Your task to perform on an android device: add a contact in the contacts app Image 0: 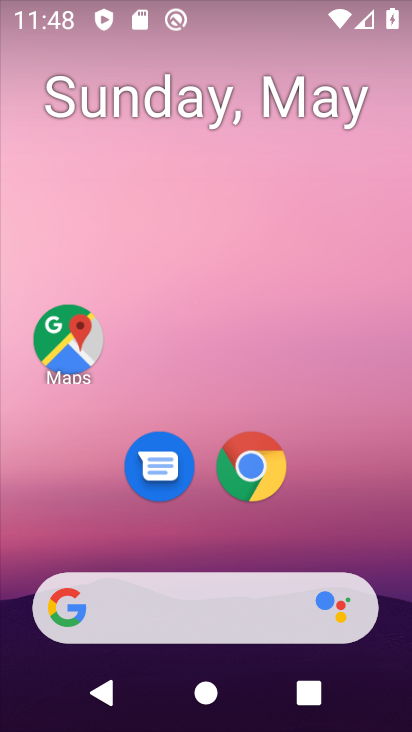
Step 0: drag from (326, 302) to (299, 6)
Your task to perform on an android device: add a contact in the contacts app Image 1: 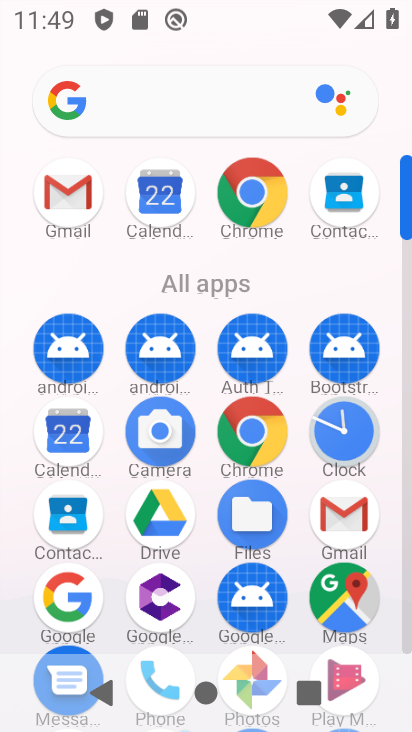
Step 1: click (89, 543)
Your task to perform on an android device: add a contact in the contacts app Image 2: 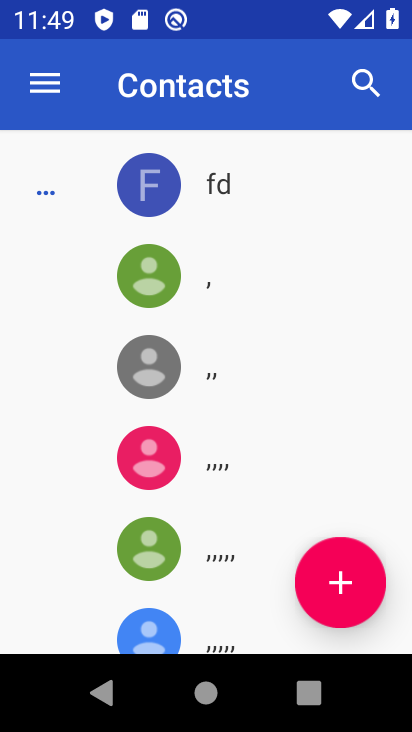
Step 2: click (352, 580)
Your task to perform on an android device: add a contact in the contacts app Image 3: 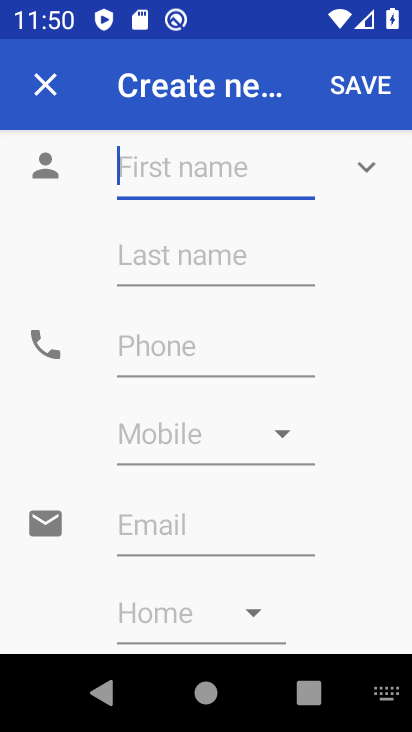
Step 3: type "b/.jj"
Your task to perform on an android device: add a contact in the contacts app Image 4: 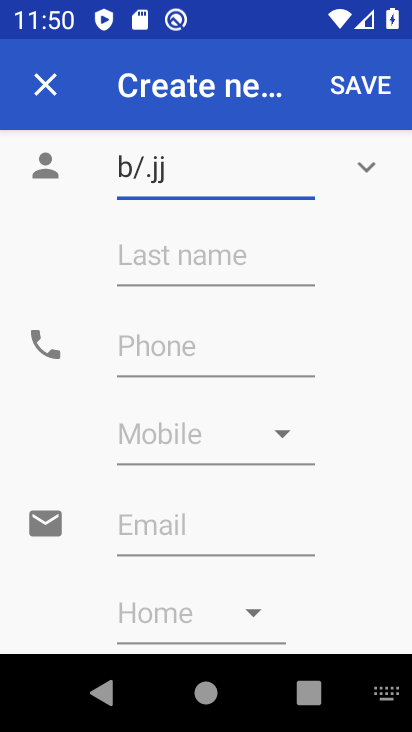
Step 4: click (145, 324)
Your task to perform on an android device: add a contact in the contacts app Image 5: 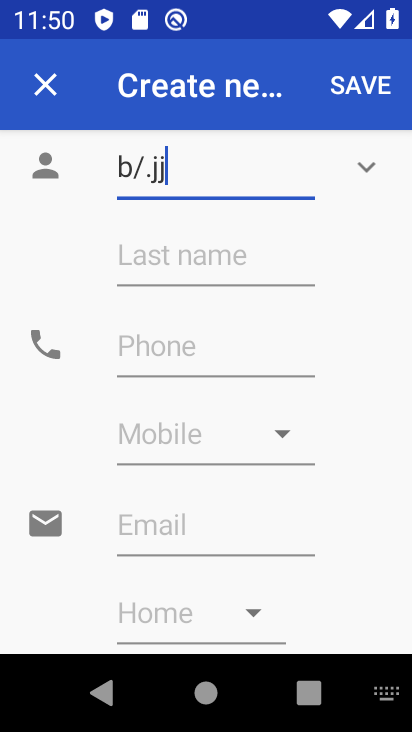
Step 5: click (145, 324)
Your task to perform on an android device: add a contact in the contacts app Image 6: 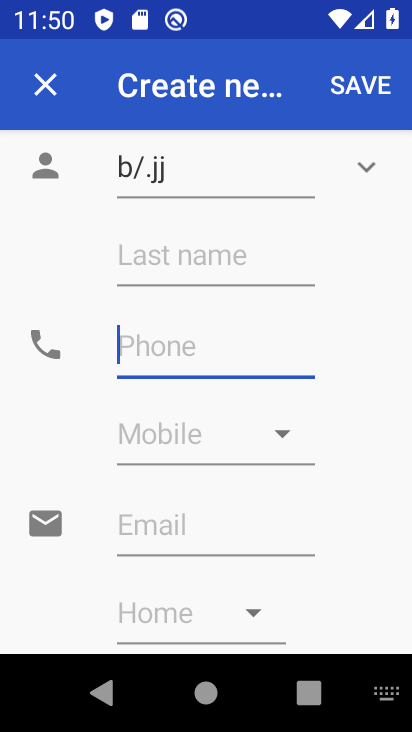
Step 6: click (145, 324)
Your task to perform on an android device: add a contact in the contacts app Image 7: 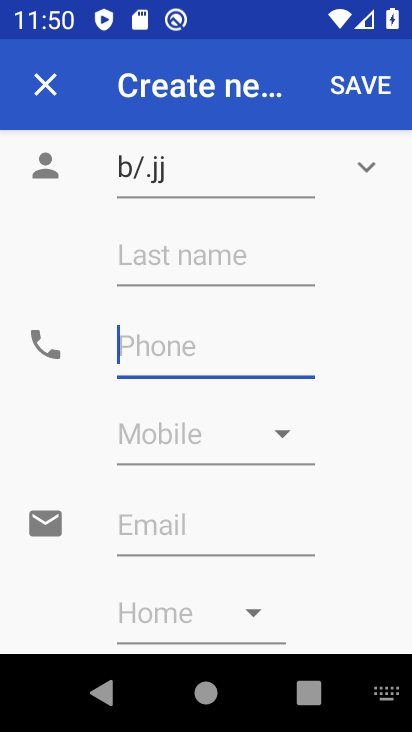
Step 7: click (145, 324)
Your task to perform on an android device: add a contact in the contacts app Image 8: 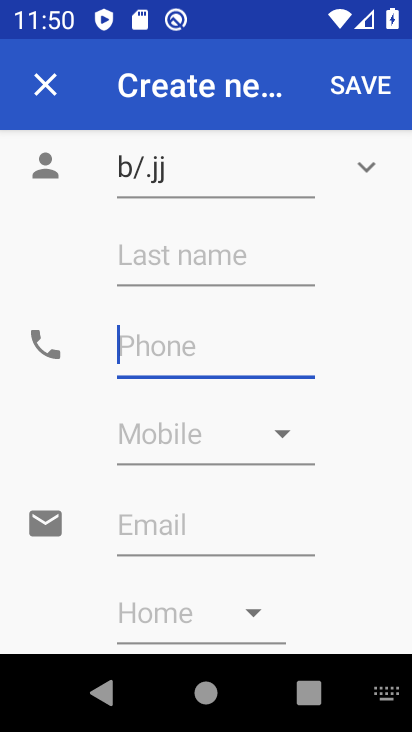
Step 8: click (145, 324)
Your task to perform on an android device: add a contact in the contacts app Image 9: 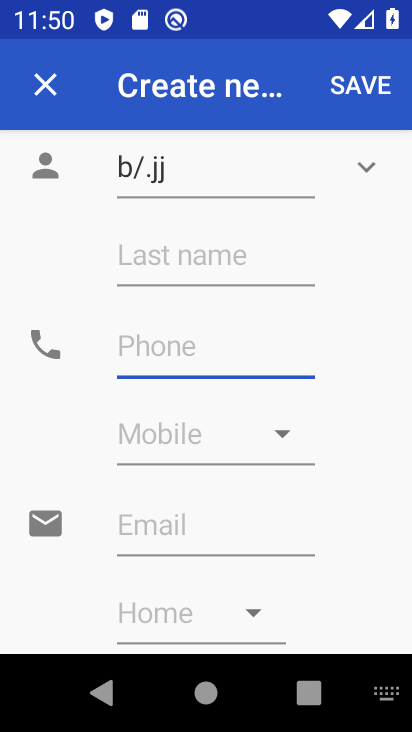
Step 9: click (145, 324)
Your task to perform on an android device: add a contact in the contacts app Image 10: 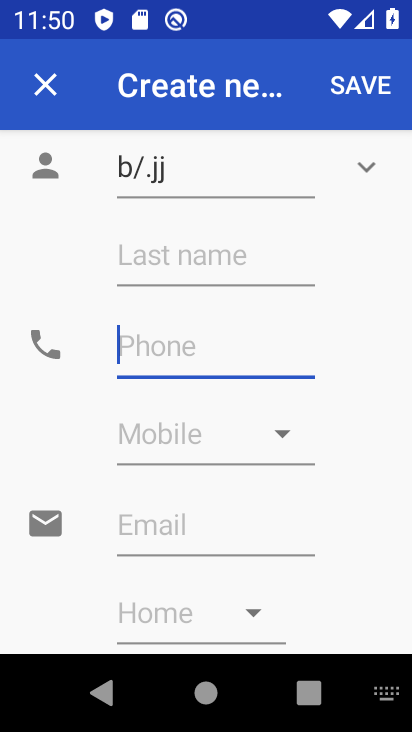
Step 10: type "......."
Your task to perform on an android device: add a contact in the contacts app Image 11: 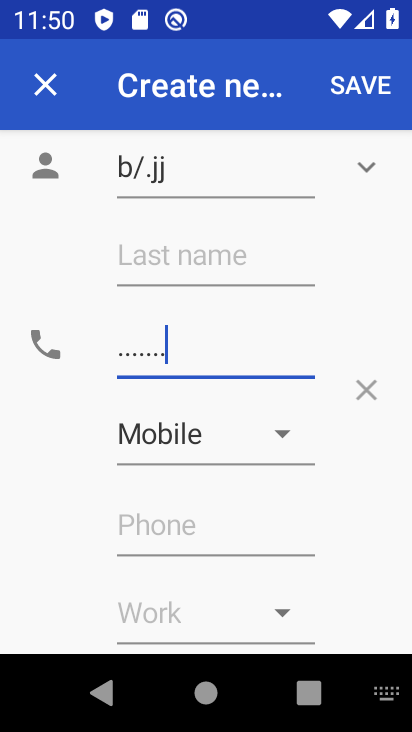
Step 11: click (376, 83)
Your task to perform on an android device: add a contact in the contacts app Image 12: 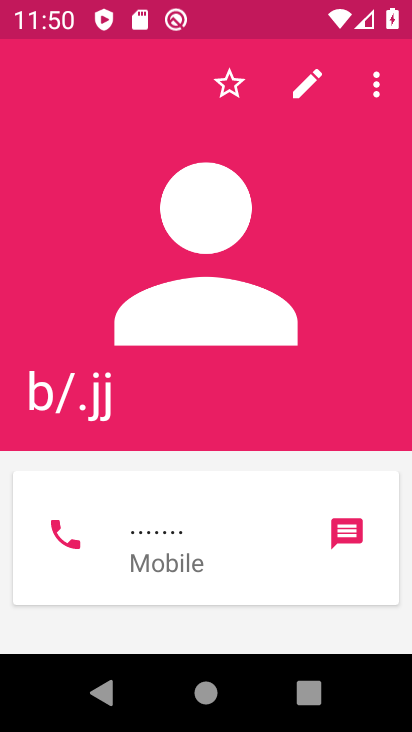
Step 12: task complete